Your task to perform on an android device: Toggle the flashlight Image 0: 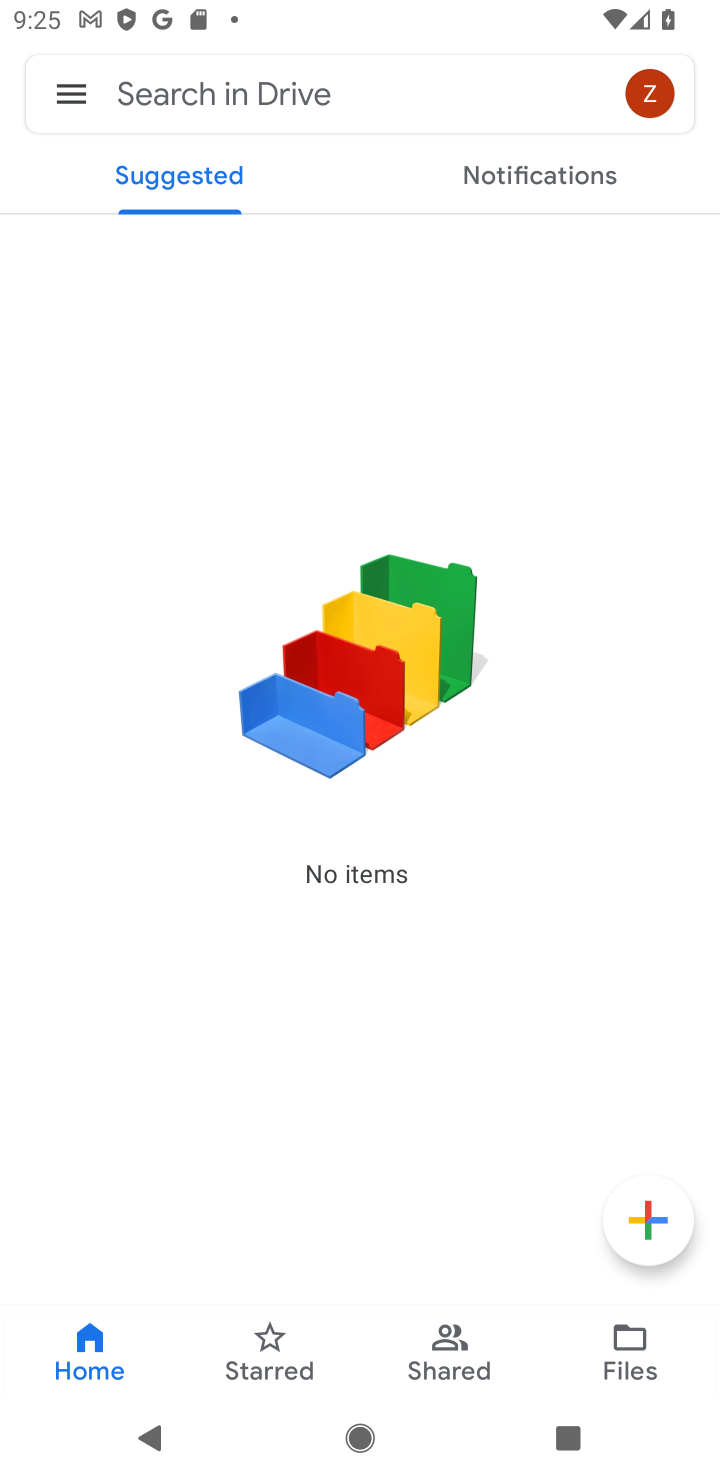
Step 0: press home button
Your task to perform on an android device: Toggle the flashlight Image 1: 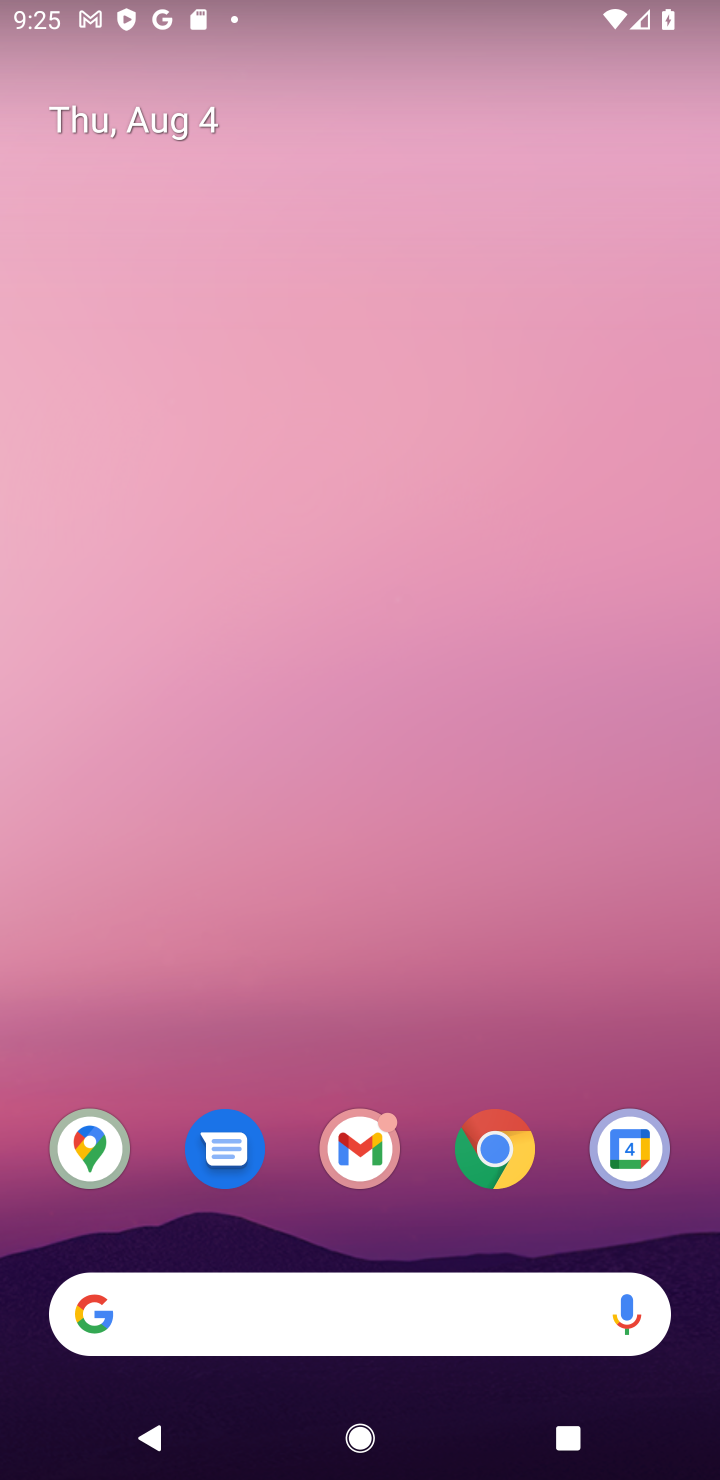
Step 1: click (389, 43)
Your task to perform on an android device: Toggle the flashlight Image 2: 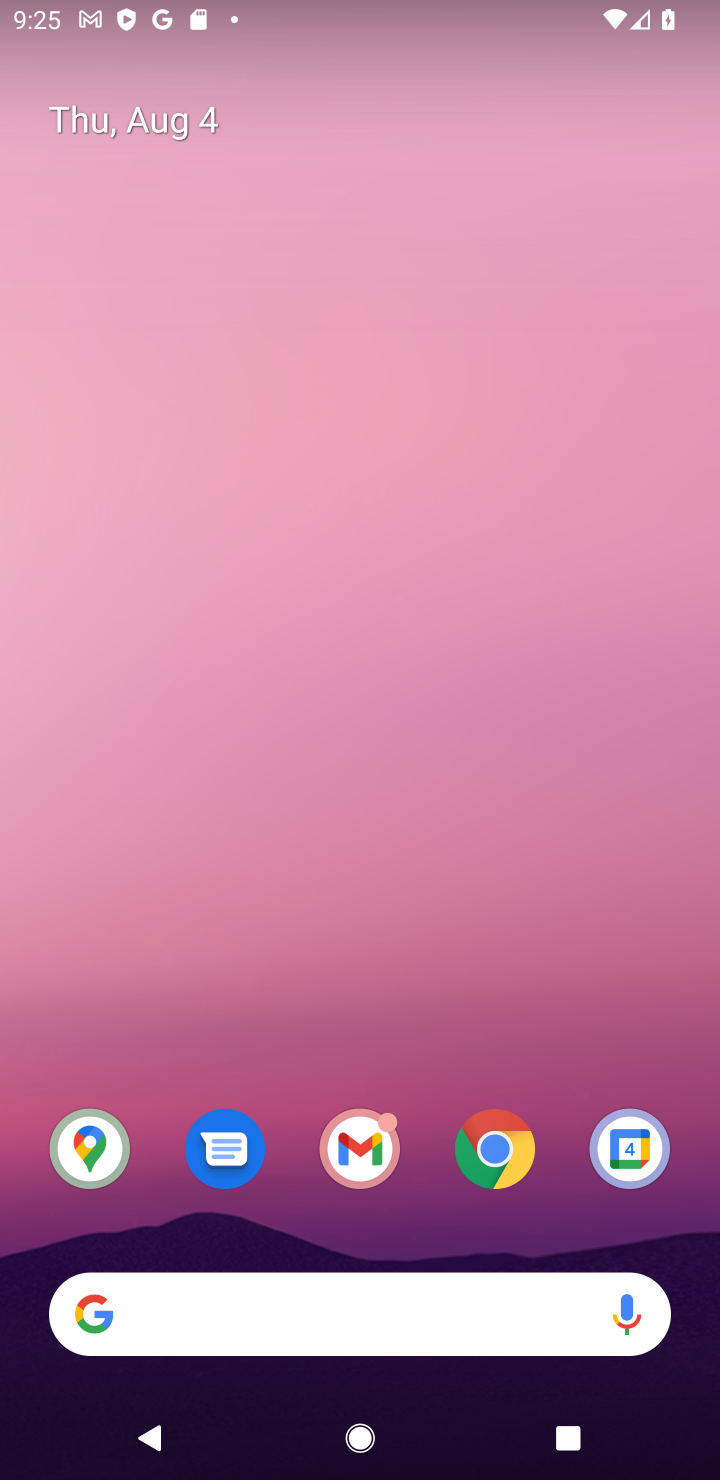
Step 2: drag from (389, 36) to (444, 781)
Your task to perform on an android device: Toggle the flashlight Image 3: 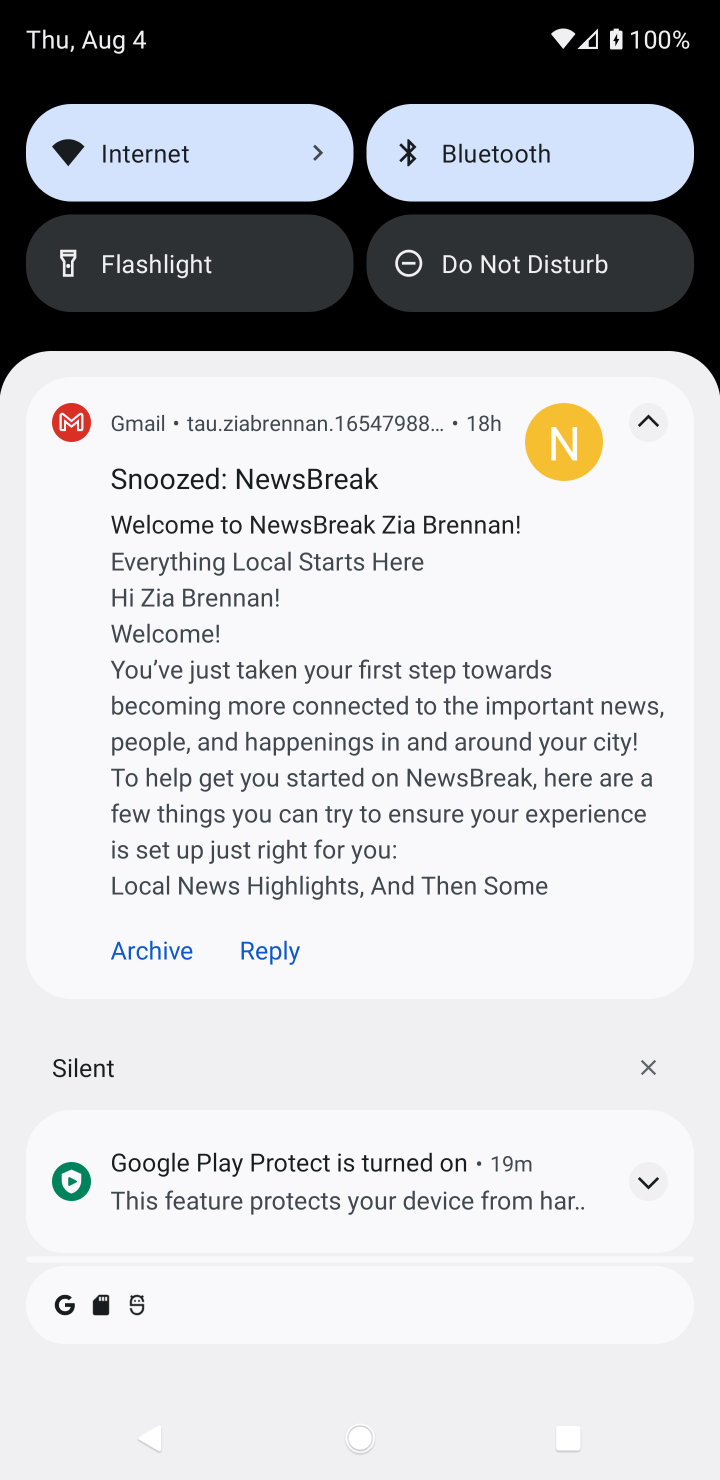
Step 3: drag from (356, 249) to (419, 1180)
Your task to perform on an android device: Toggle the flashlight Image 4: 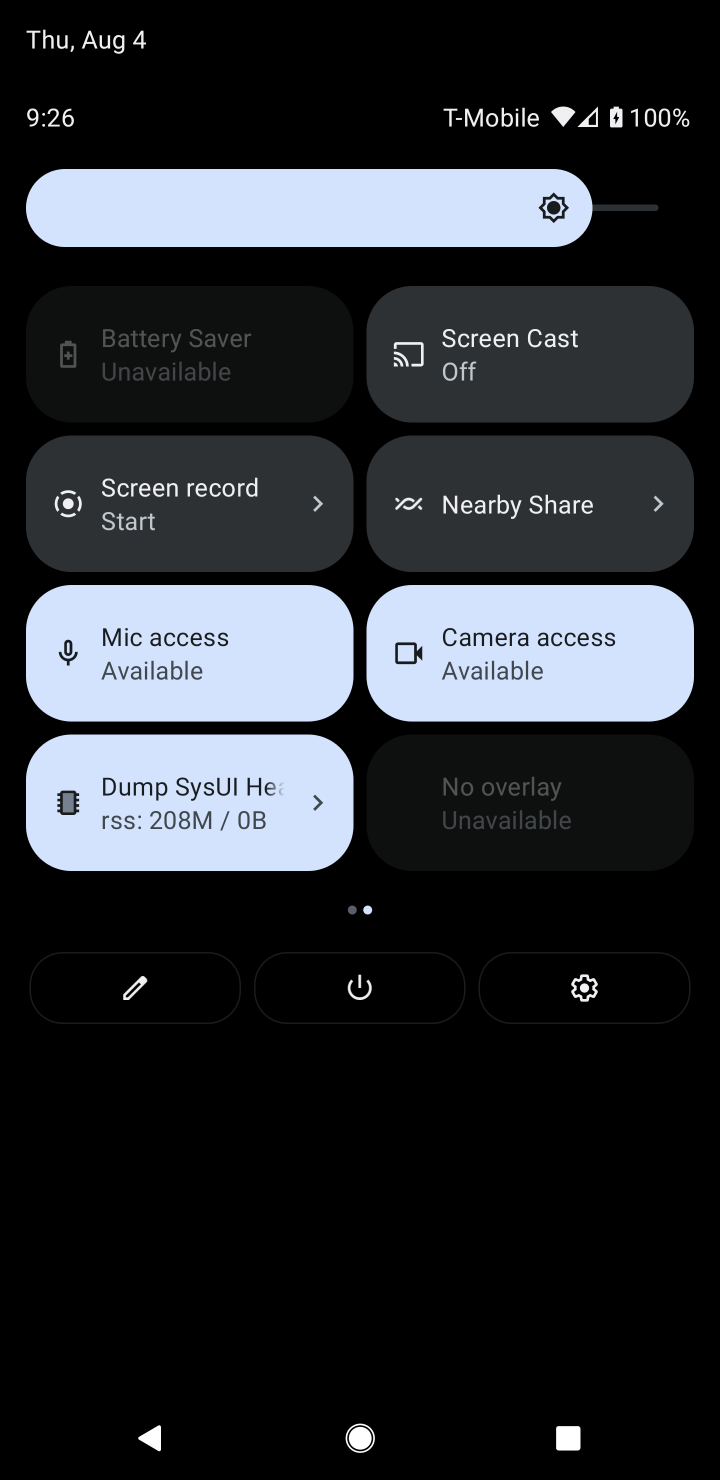
Step 4: drag from (359, 1296) to (324, 885)
Your task to perform on an android device: Toggle the flashlight Image 5: 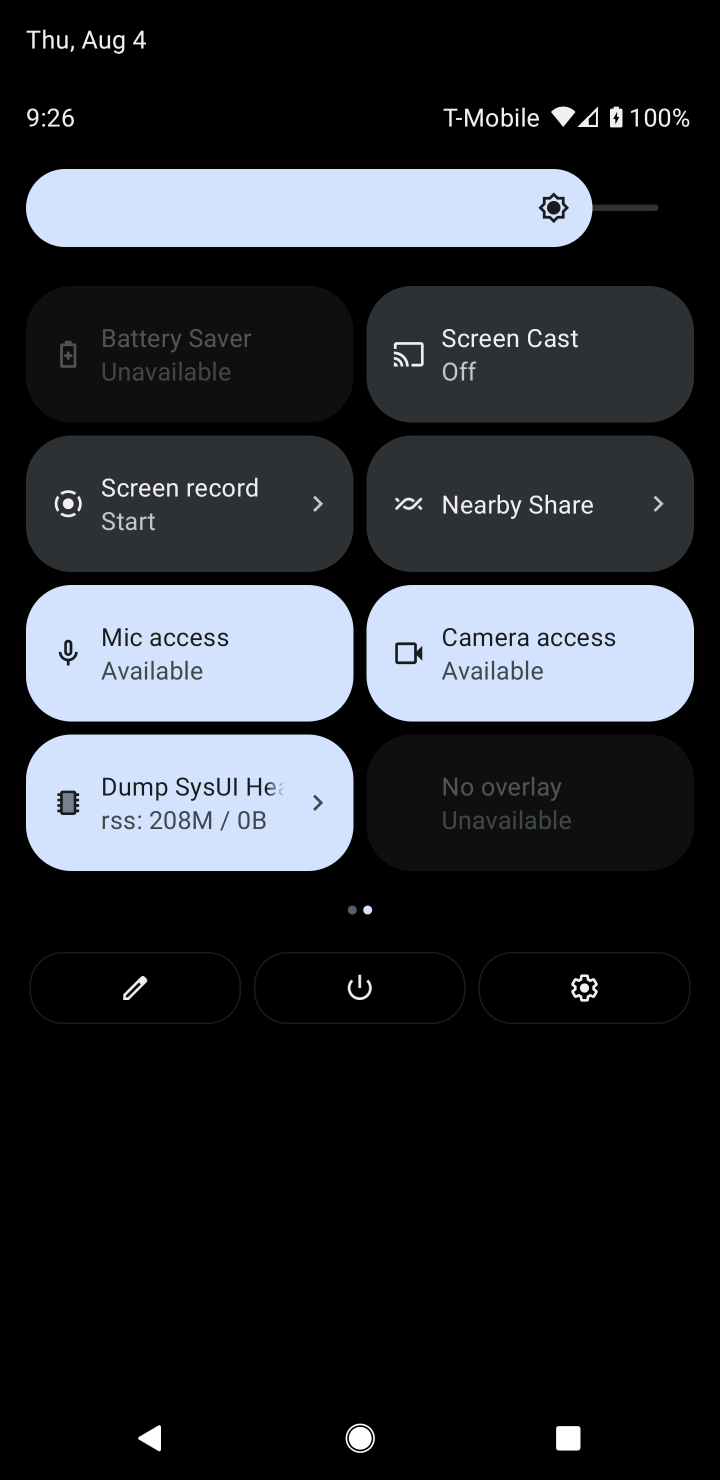
Step 5: drag from (350, 1280) to (317, 359)
Your task to perform on an android device: Toggle the flashlight Image 6: 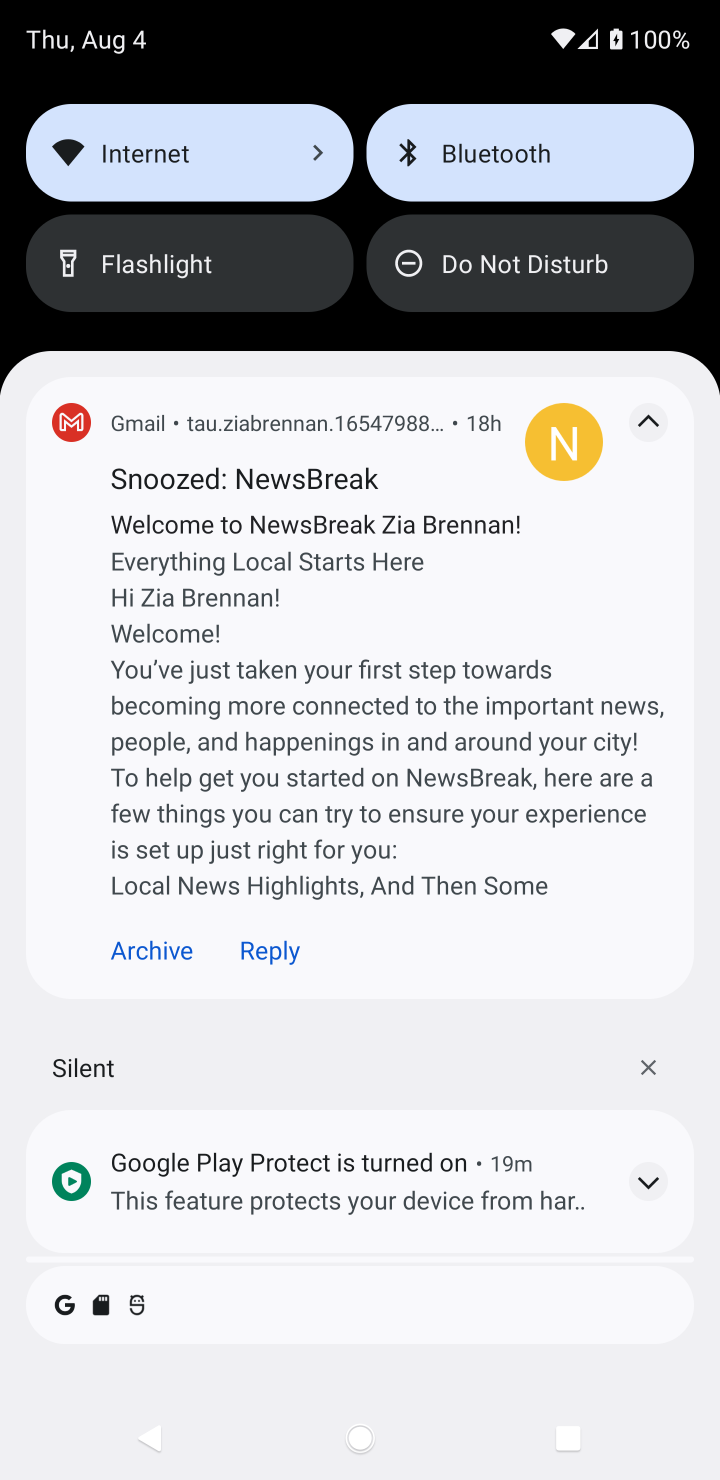
Step 6: click (126, 273)
Your task to perform on an android device: Toggle the flashlight Image 7: 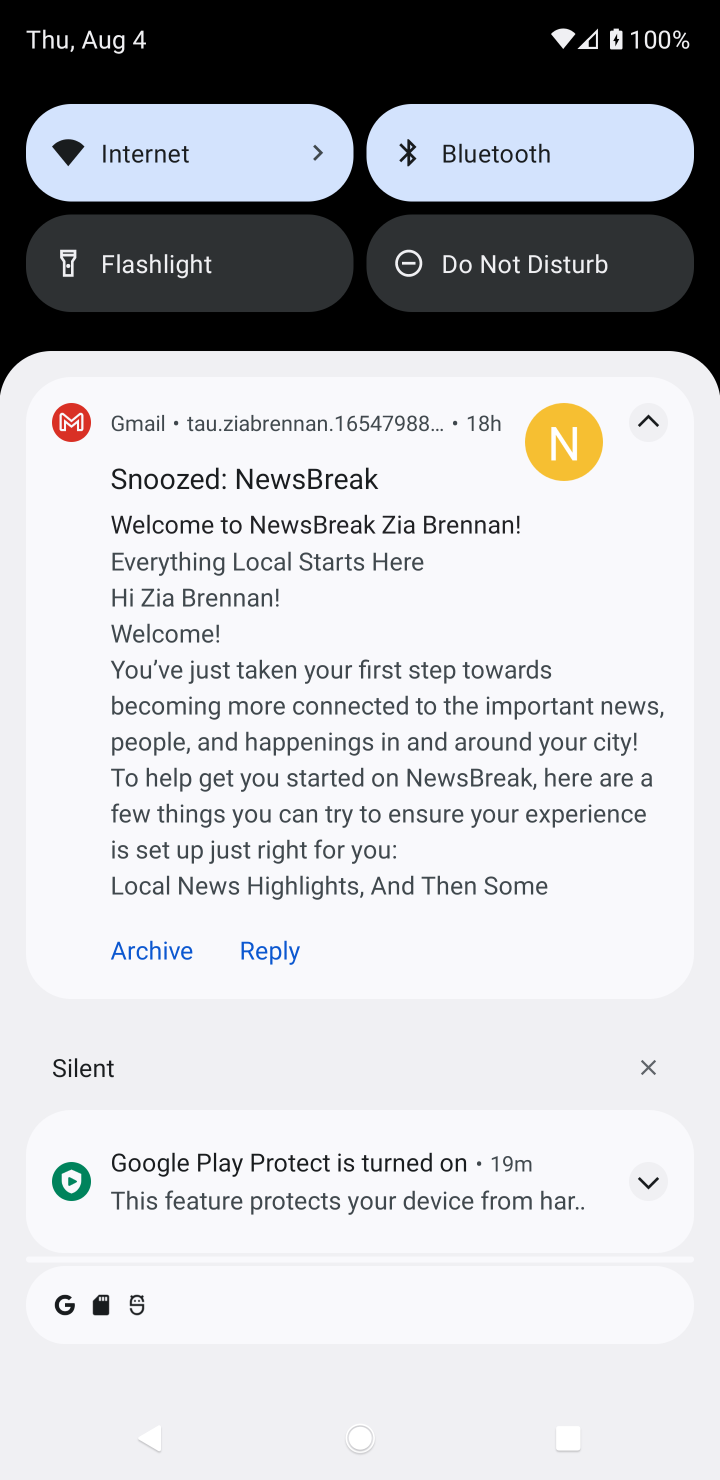
Step 7: click (175, 272)
Your task to perform on an android device: Toggle the flashlight Image 8: 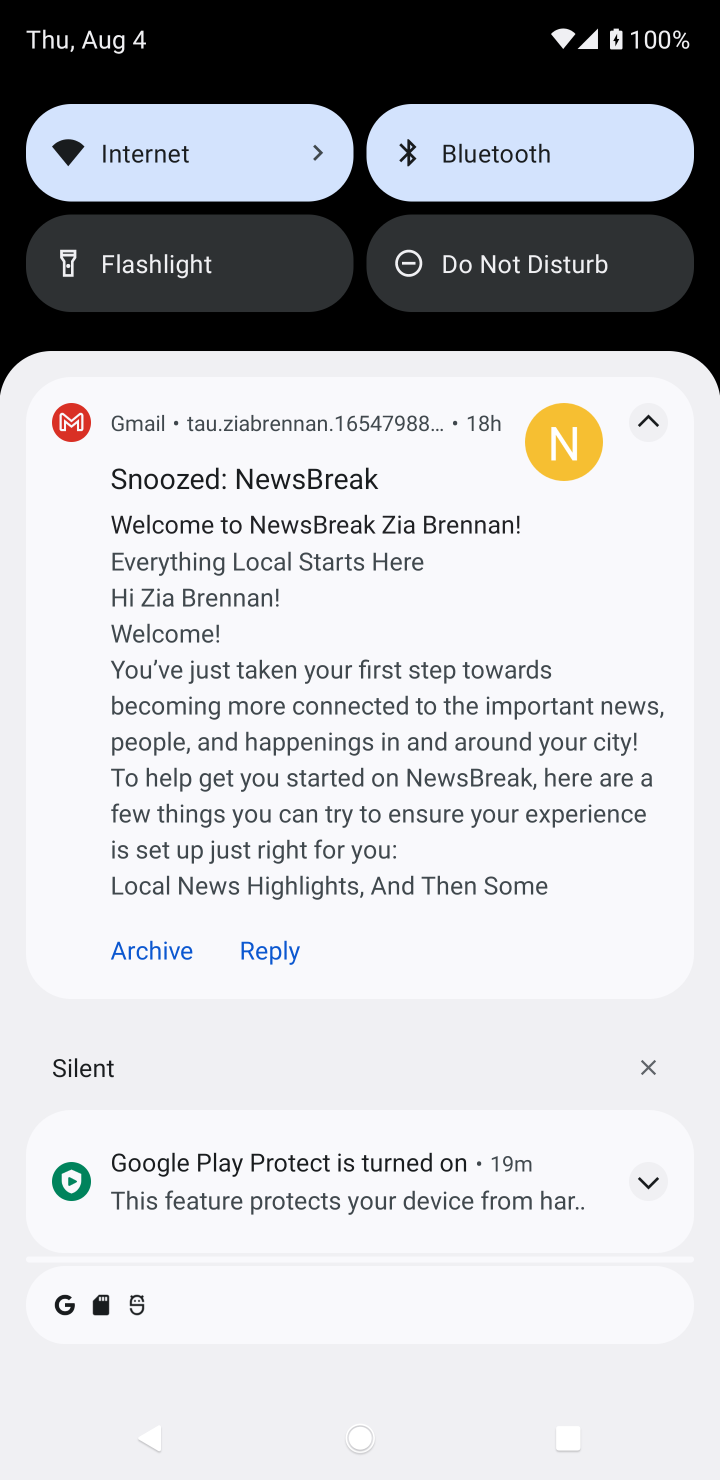
Step 8: task complete